Your task to perform on an android device: change text size in settings app Image 0: 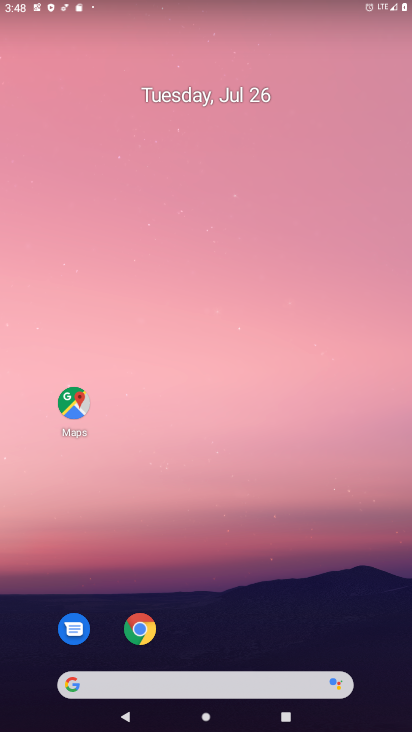
Step 0: drag from (230, 703) to (240, 229)
Your task to perform on an android device: change text size in settings app Image 1: 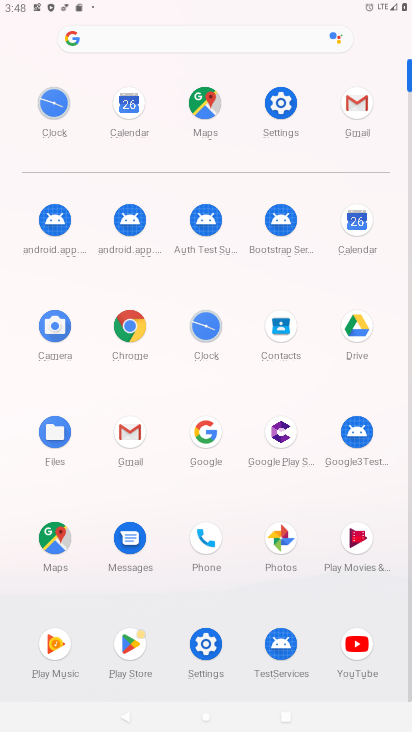
Step 1: click (275, 108)
Your task to perform on an android device: change text size in settings app Image 2: 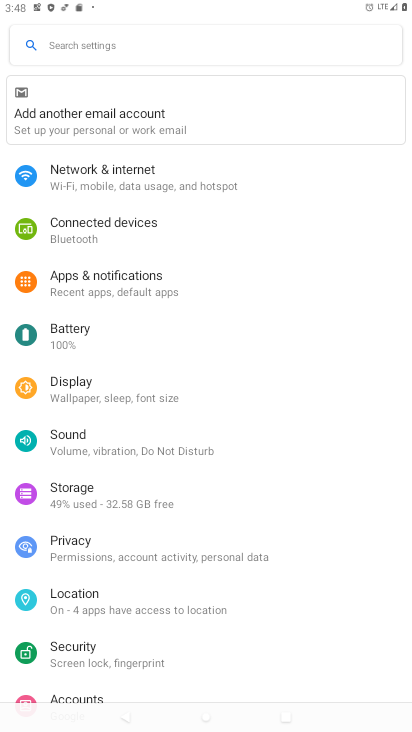
Step 2: click (132, 396)
Your task to perform on an android device: change text size in settings app Image 3: 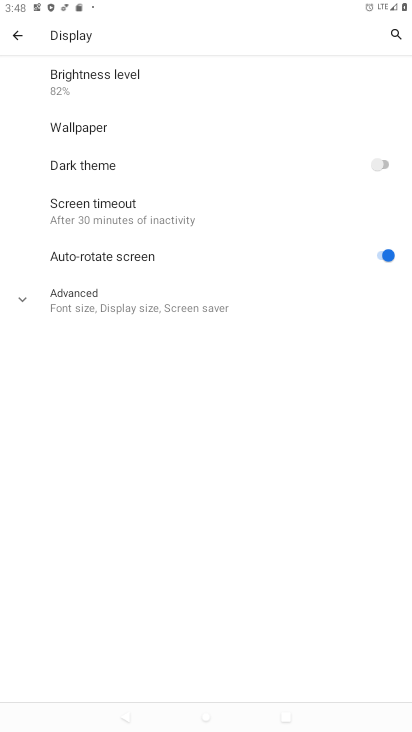
Step 3: click (100, 300)
Your task to perform on an android device: change text size in settings app Image 4: 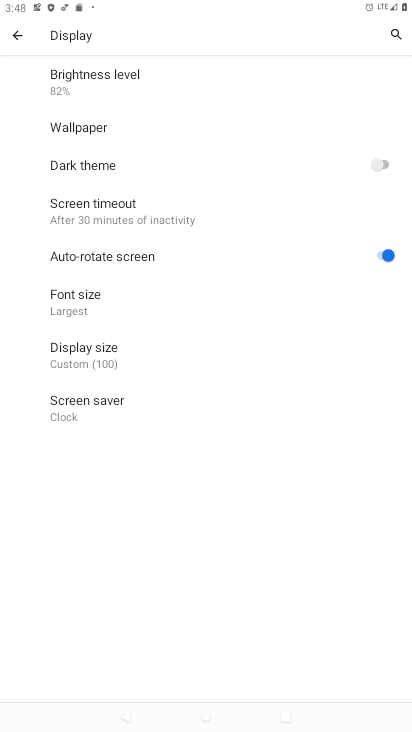
Step 4: click (74, 300)
Your task to perform on an android device: change text size in settings app Image 5: 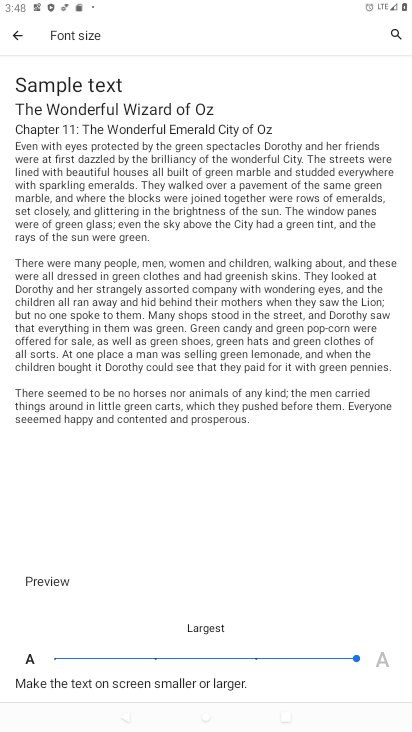
Step 5: click (253, 657)
Your task to perform on an android device: change text size in settings app Image 6: 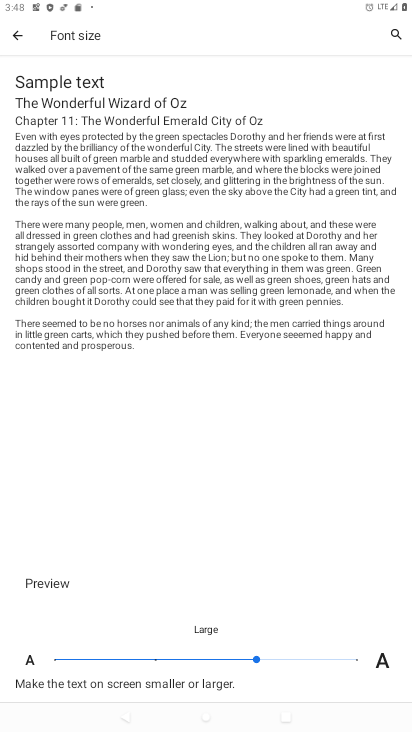
Step 6: task complete